Your task to perform on an android device: turn off airplane mode Image 0: 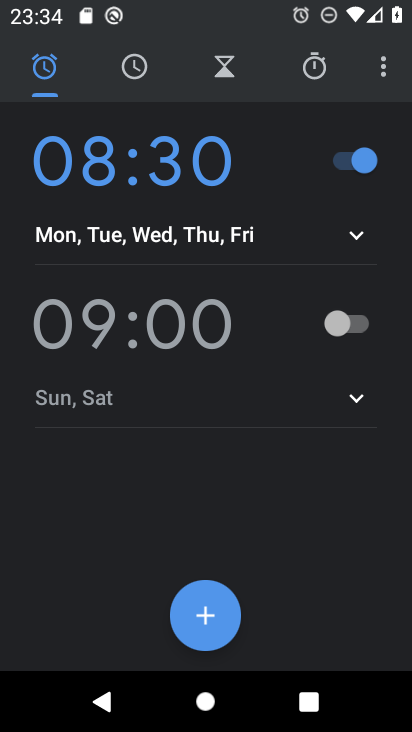
Step 0: press home button
Your task to perform on an android device: turn off airplane mode Image 1: 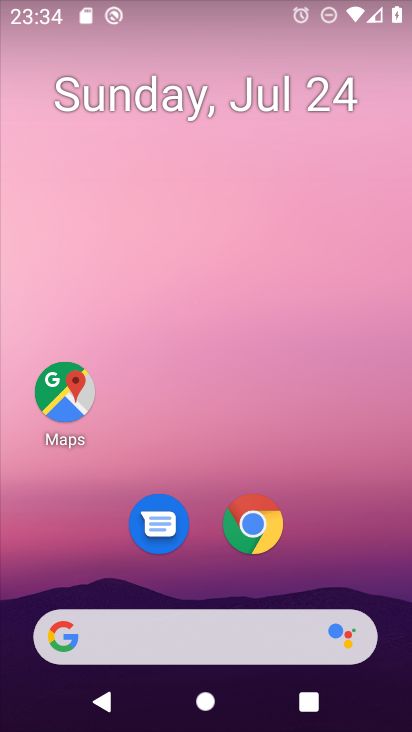
Step 1: drag from (258, 591) to (402, 2)
Your task to perform on an android device: turn off airplane mode Image 2: 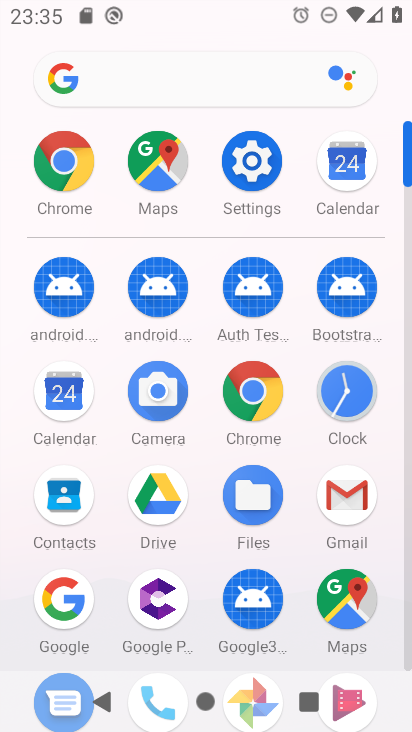
Step 2: click (245, 160)
Your task to perform on an android device: turn off airplane mode Image 3: 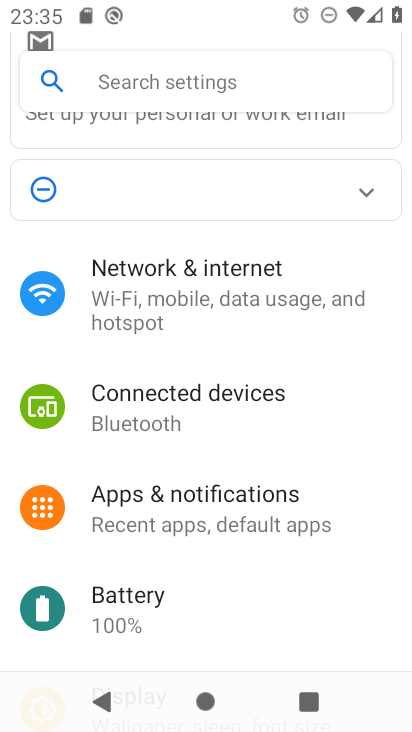
Step 3: click (236, 290)
Your task to perform on an android device: turn off airplane mode Image 4: 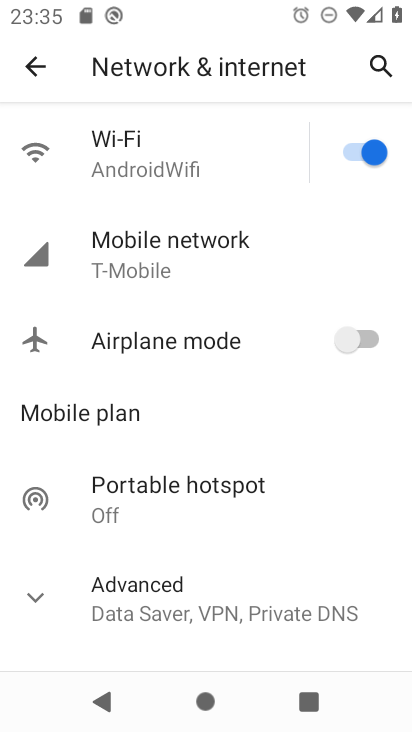
Step 4: task complete